Your task to perform on an android device: Open the stopwatch Image 0: 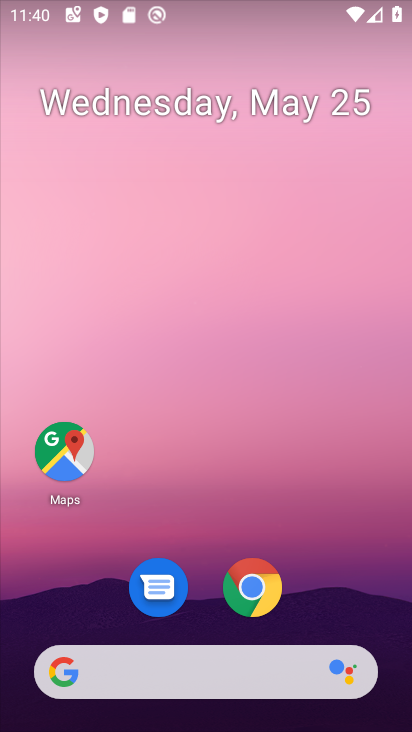
Step 0: drag from (259, 667) to (186, 44)
Your task to perform on an android device: Open the stopwatch Image 1: 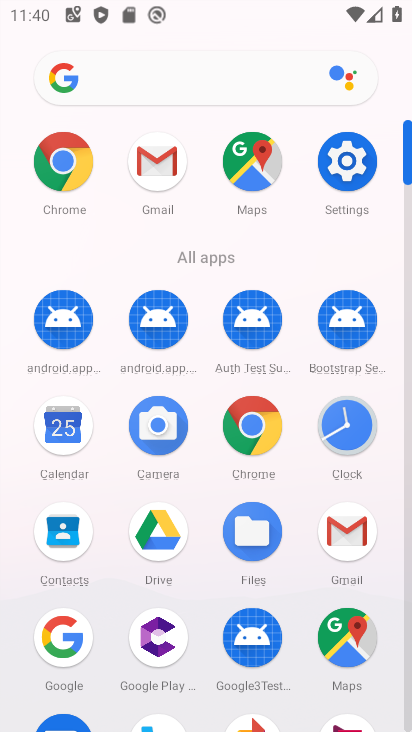
Step 1: click (360, 427)
Your task to perform on an android device: Open the stopwatch Image 2: 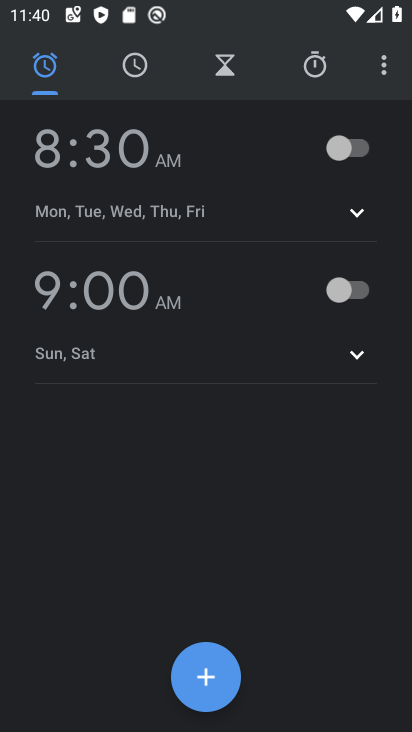
Step 2: click (309, 67)
Your task to perform on an android device: Open the stopwatch Image 3: 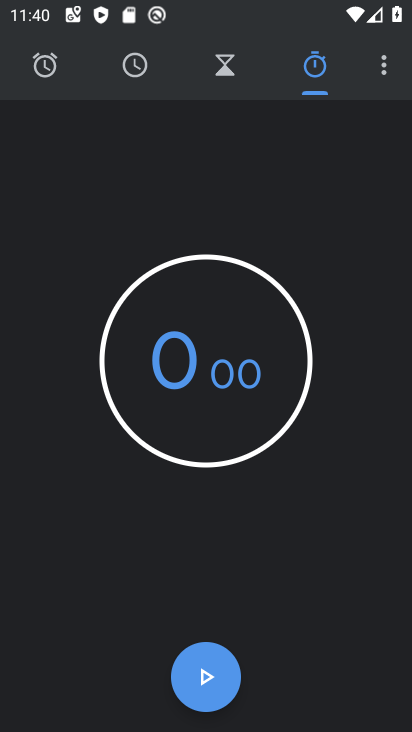
Step 3: click (208, 716)
Your task to perform on an android device: Open the stopwatch Image 4: 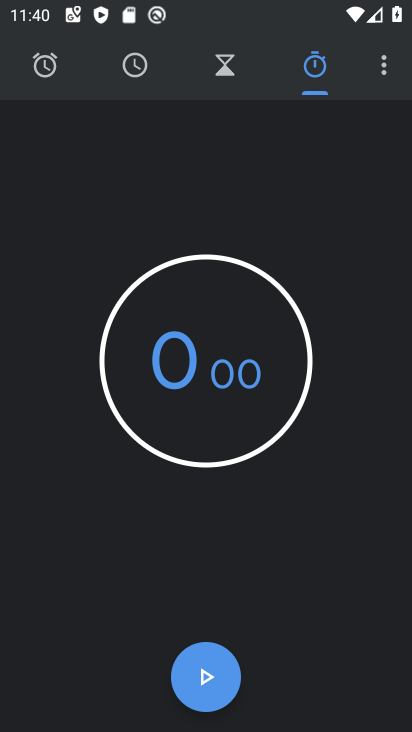
Step 4: click (206, 679)
Your task to perform on an android device: Open the stopwatch Image 5: 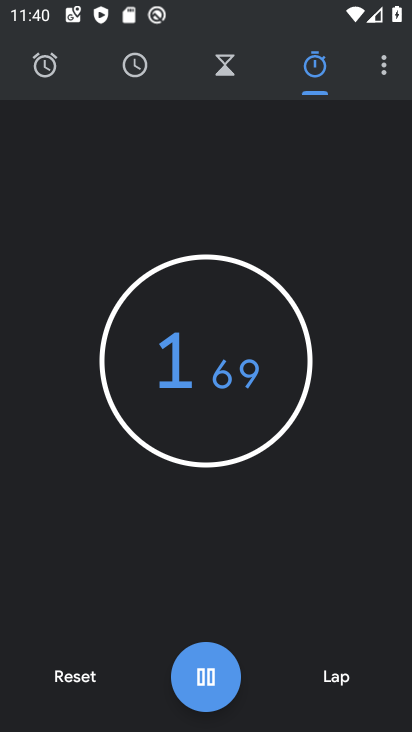
Step 5: task complete